Your task to perform on an android device: What's the weather today? Image 0: 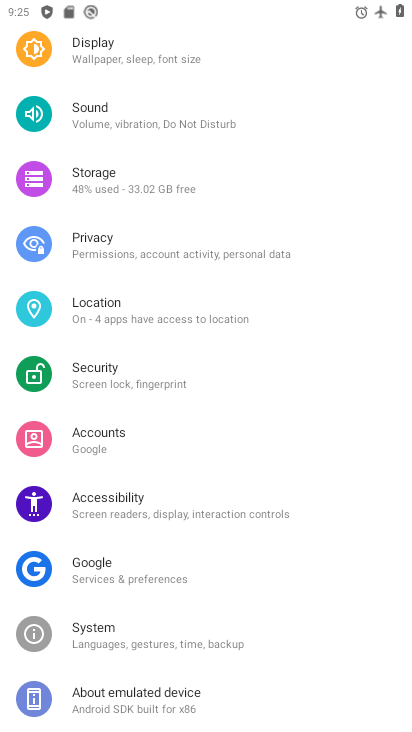
Step 0: press home button
Your task to perform on an android device: What's the weather today? Image 1: 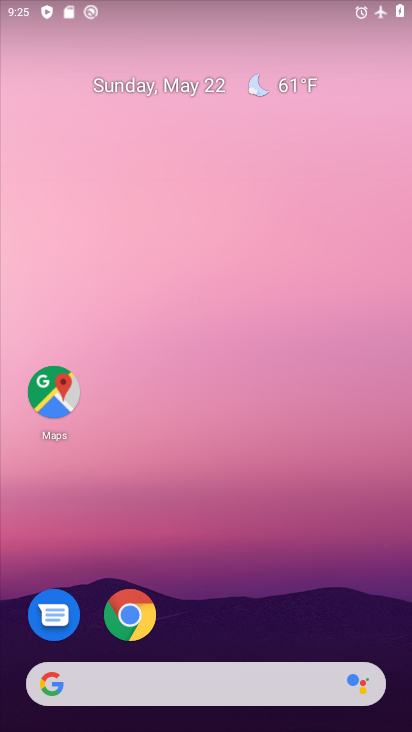
Step 1: drag from (216, 635) to (225, 125)
Your task to perform on an android device: What's the weather today? Image 2: 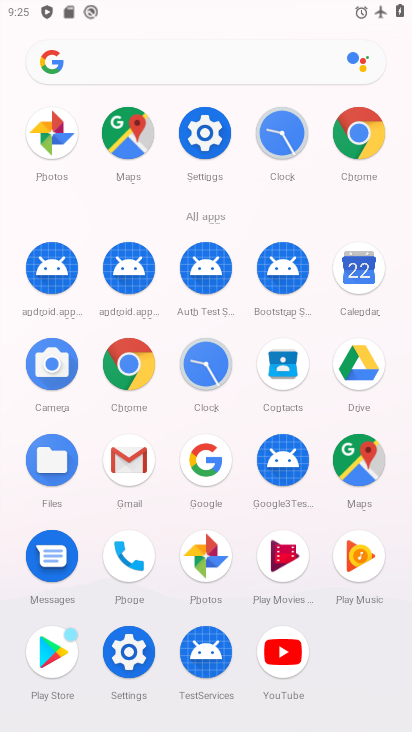
Step 2: click (214, 469)
Your task to perform on an android device: What's the weather today? Image 3: 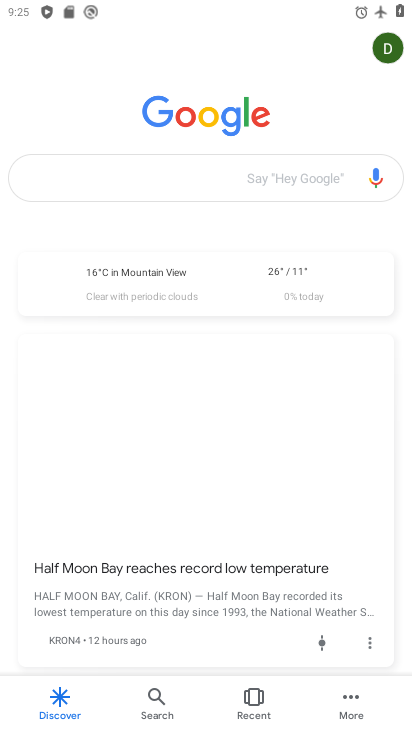
Step 3: click (174, 182)
Your task to perform on an android device: What's the weather today? Image 4: 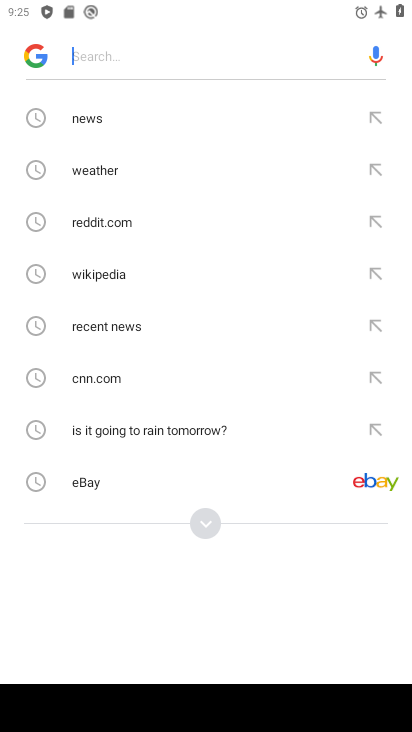
Step 4: click (123, 174)
Your task to perform on an android device: What's the weather today? Image 5: 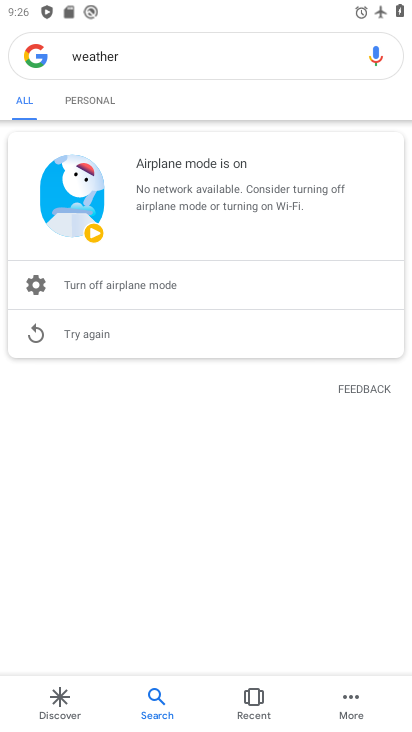
Step 5: task complete